Your task to perform on an android device: Go to battery settings Image 0: 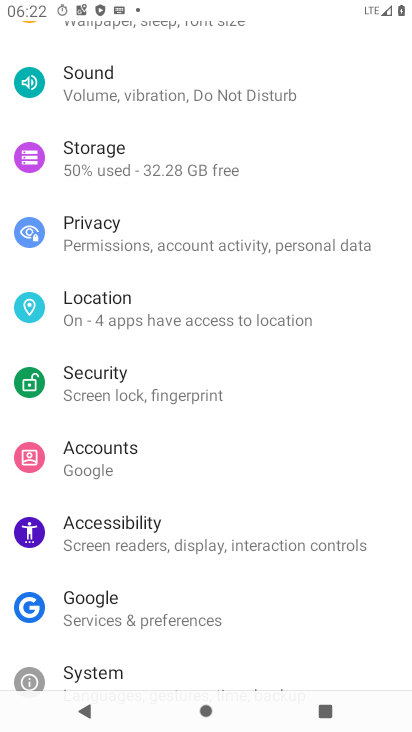
Step 0: drag from (124, 169) to (137, 504)
Your task to perform on an android device: Go to battery settings Image 1: 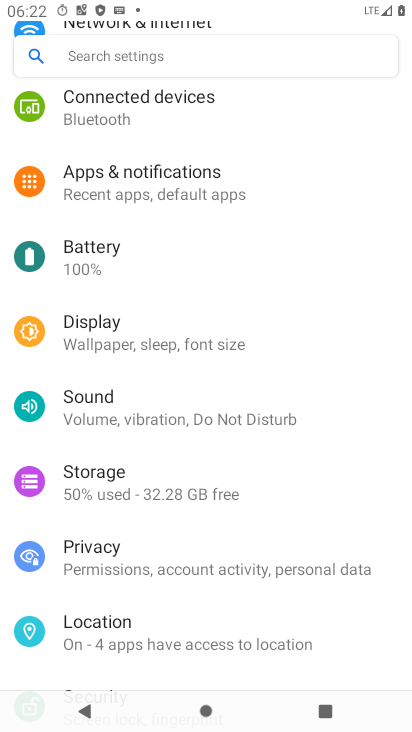
Step 1: click (109, 270)
Your task to perform on an android device: Go to battery settings Image 2: 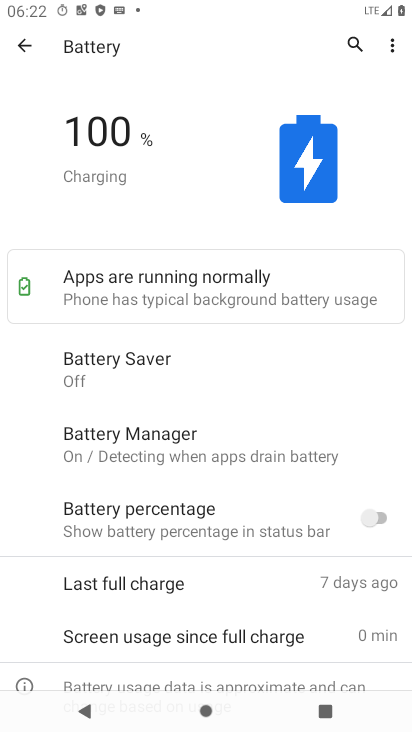
Step 2: task complete